Your task to perform on an android device: visit the assistant section in the google photos Image 0: 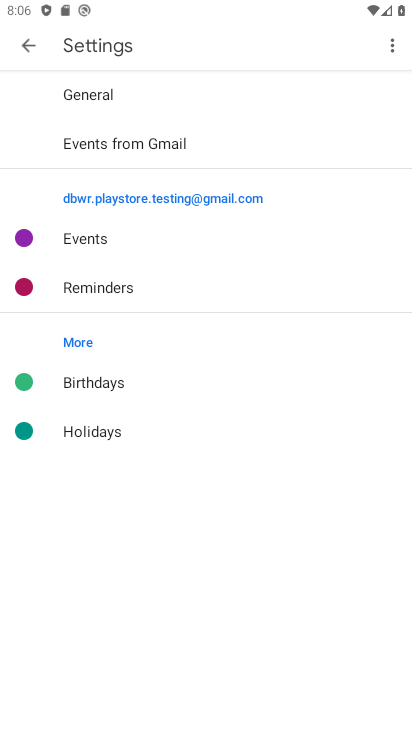
Step 0: press home button
Your task to perform on an android device: visit the assistant section in the google photos Image 1: 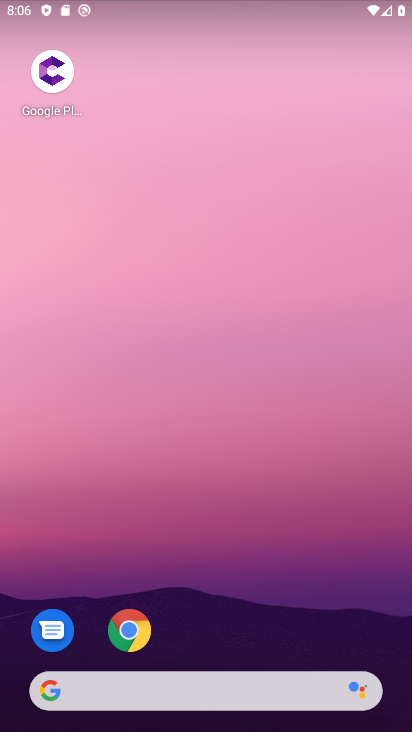
Step 1: drag from (379, 645) to (373, 158)
Your task to perform on an android device: visit the assistant section in the google photos Image 2: 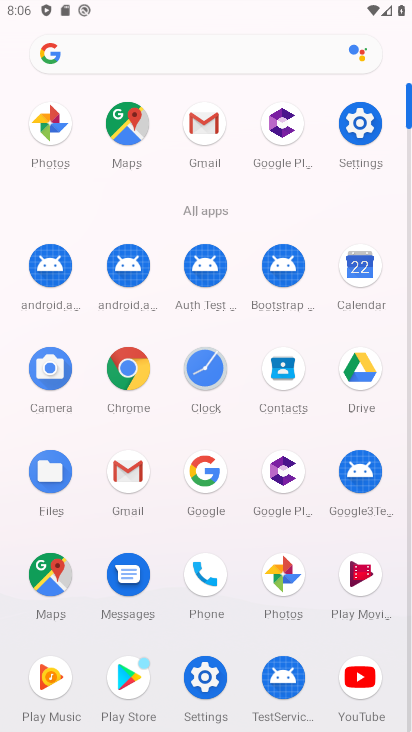
Step 2: click (293, 576)
Your task to perform on an android device: visit the assistant section in the google photos Image 3: 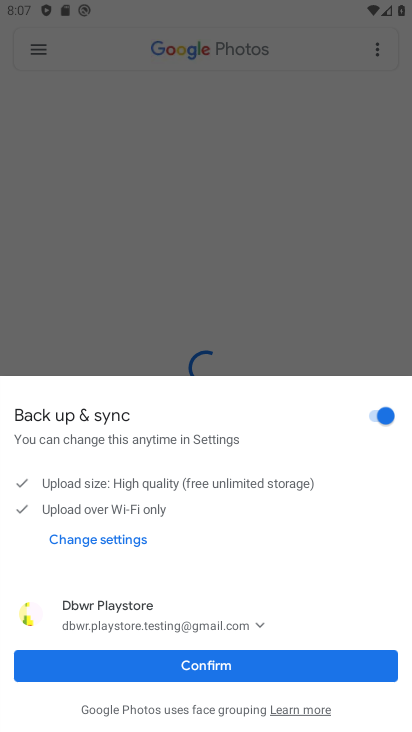
Step 3: click (291, 667)
Your task to perform on an android device: visit the assistant section in the google photos Image 4: 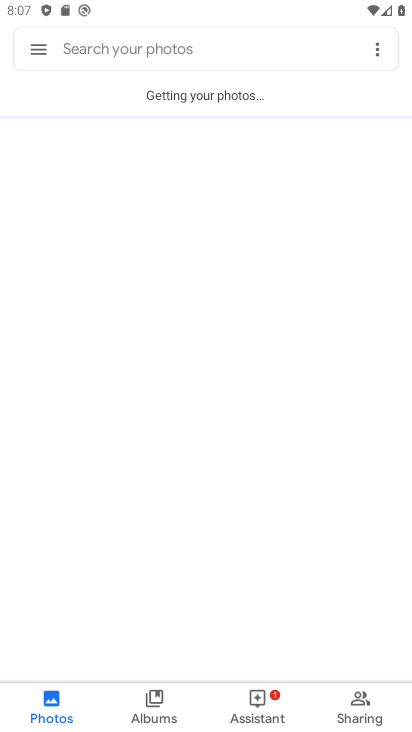
Step 4: click (259, 696)
Your task to perform on an android device: visit the assistant section in the google photos Image 5: 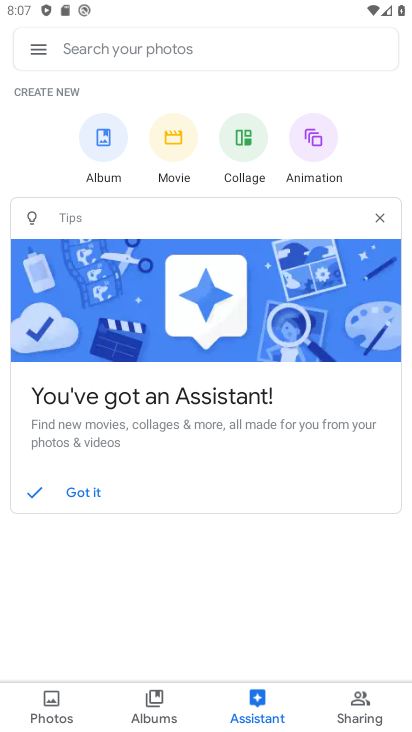
Step 5: task complete